Your task to perform on an android device: turn off data saver in the chrome app Image 0: 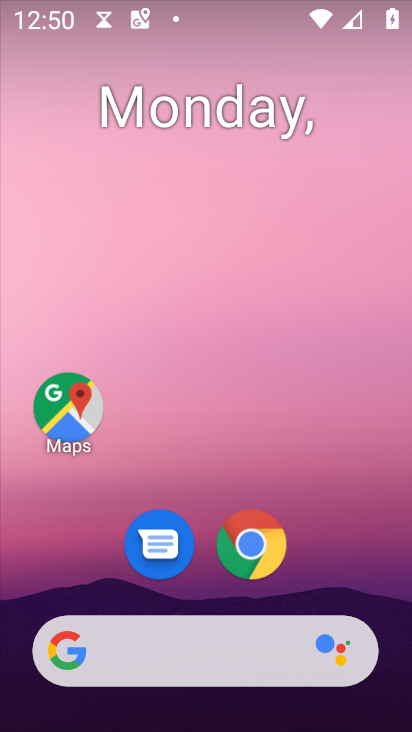
Step 0: drag from (294, 574) to (336, 246)
Your task to perform on an android device: turn off data saver in the chrome app Image 1: 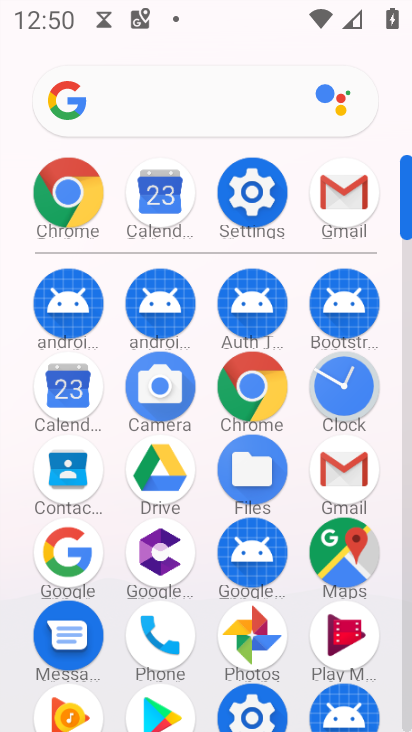
Step 1: click (60, 180)
Your task to perform on an android device: turn off data saver in the chrome app Image 2: 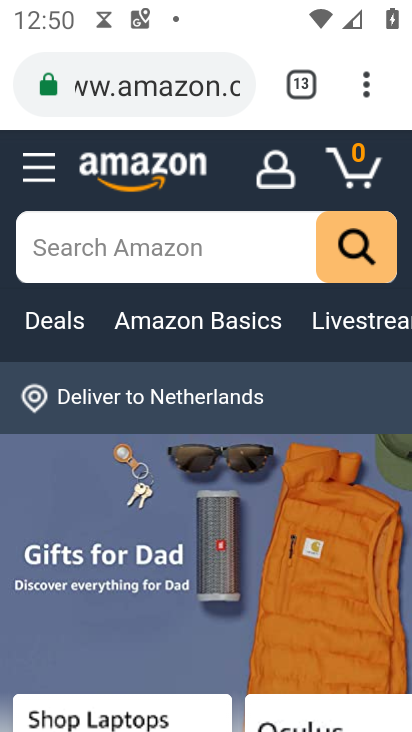
Step 2: click (366, 81)
Your task to perform on an android device: turn off data saver in the chrome app Image 3: 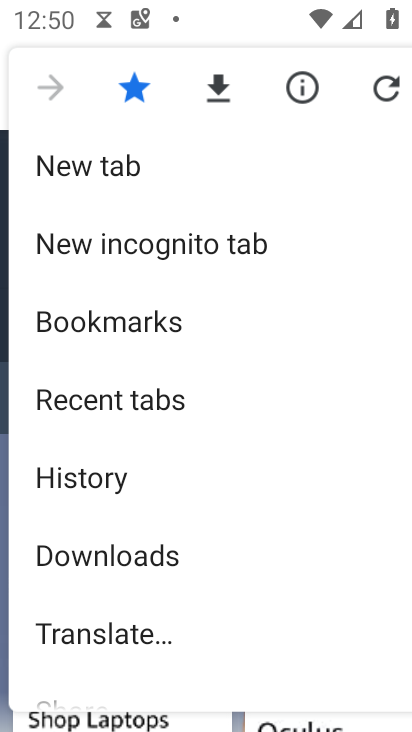
Step 3: drag from (207, 613) to (276, 201)
Your task to perform on an android device: turn off data saver in the chrome app Image 4: 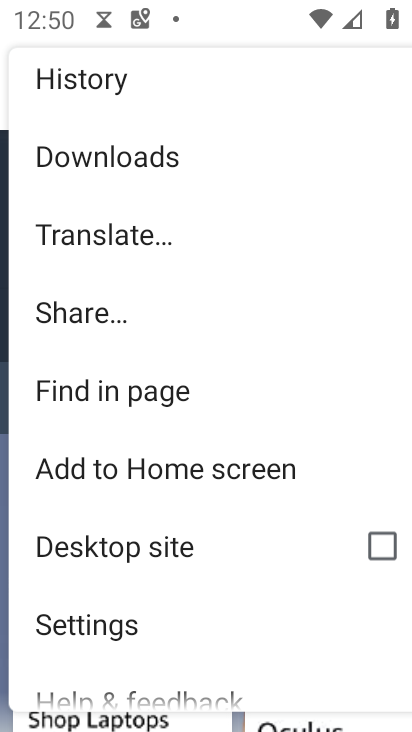
Step 4: click (162, 612)
Your task to perform on an android device: turn off data saver in the chrome app Image 5: 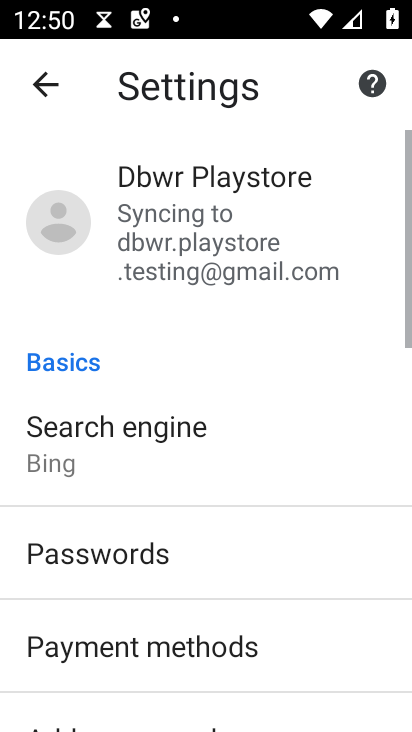
Step 5: drag from (257, 612) to (303, 125)
Your task to perform on an android device: turn off data saver in the chrome app Image 6: 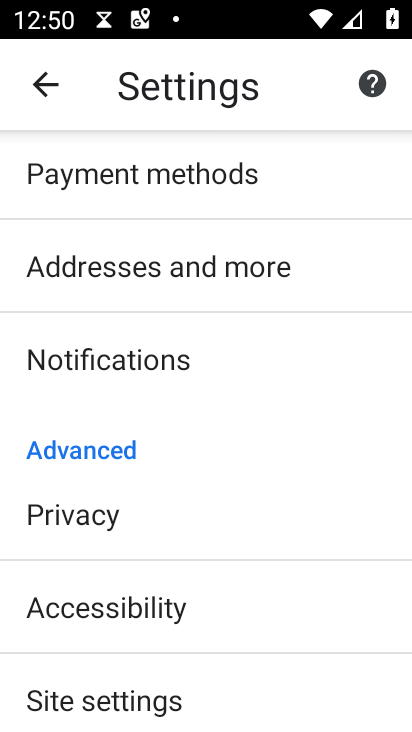
Step 6: drag from (268, 631) to (323, 254)
Your task to perform on an android device: turn off data saver in the chrome app Image 7: 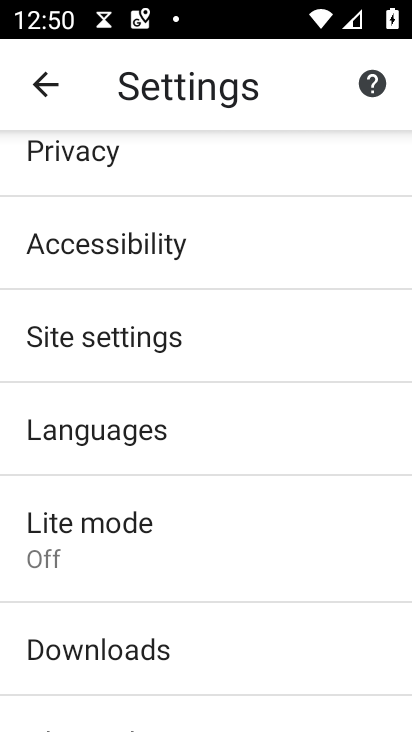
Step 7: click (160, 545)
Your task to perform on an android device: turn off data saver in the chrome app Image 8: 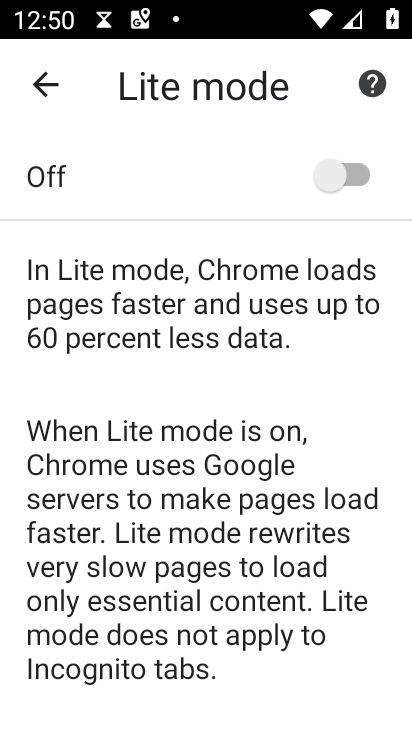
Step 8: task complete